Your task to perform on an android device: find photos in the google photos app Image 0: 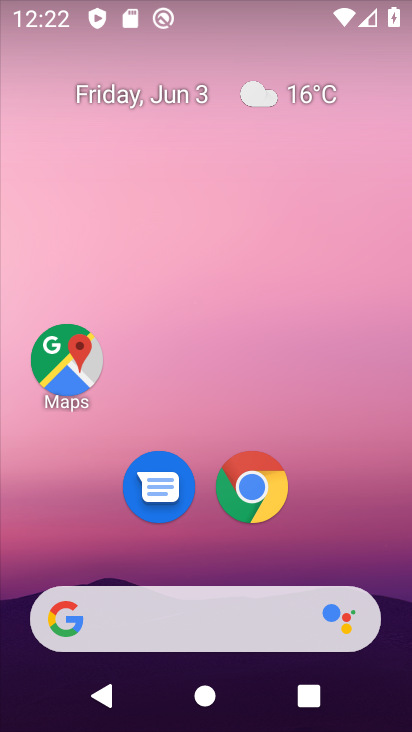
Step 0: drag from (119, 383) to (89, 259)
Your task to perform on an android device: find photos in the google photos app Image 1: 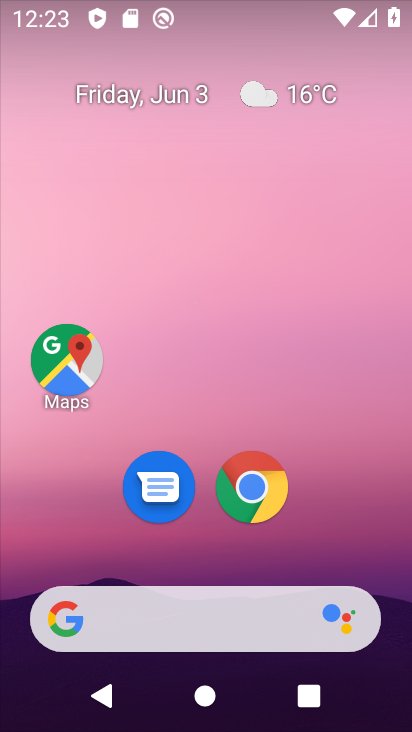
Step 1: drag from (171, 590) to (109, 142)
Your task to perform on an android device: find photos in the google photos app Image 2: 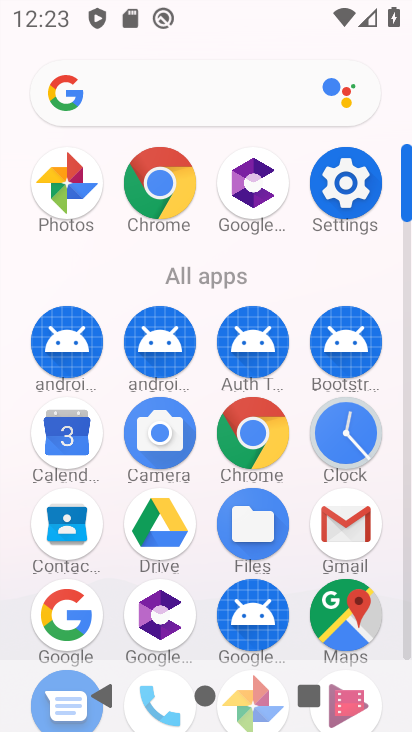
Step 2: drag from (197, 567) to (116, 141)
Your task to perform on an android device: find photos in the google photos app Image 3: 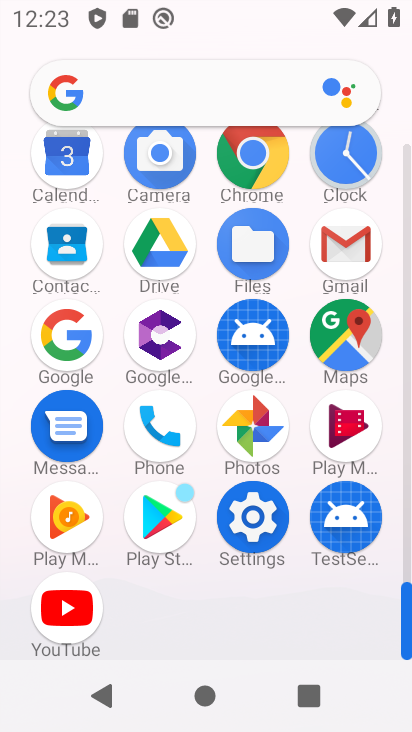
Step 3: click (240, 419)
Your task to perform on an android device: find photos in the google photos app Image 4: 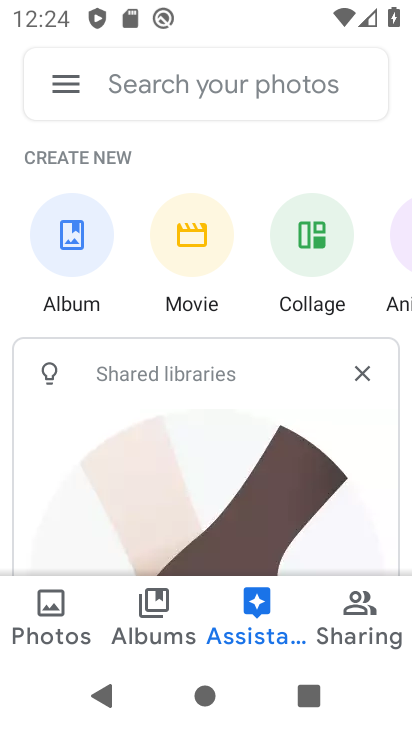
Step 4: click (48, 616)
Your task to perform on an android device: find photos in the google photos app Image 5: 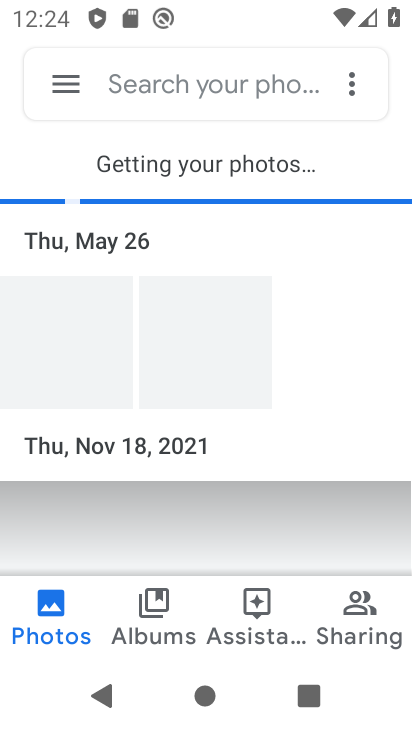
Step 5: task complete